Your task to perform on an android device: Check the weather Image 0: 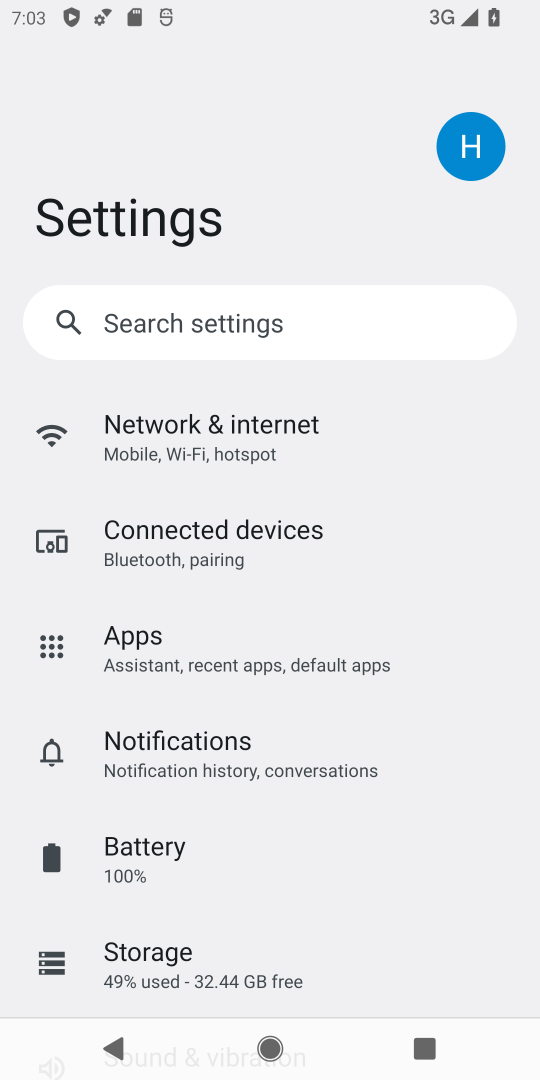
Step 0: press home button
Your task to perform on an android device: Check the weather Image 1: 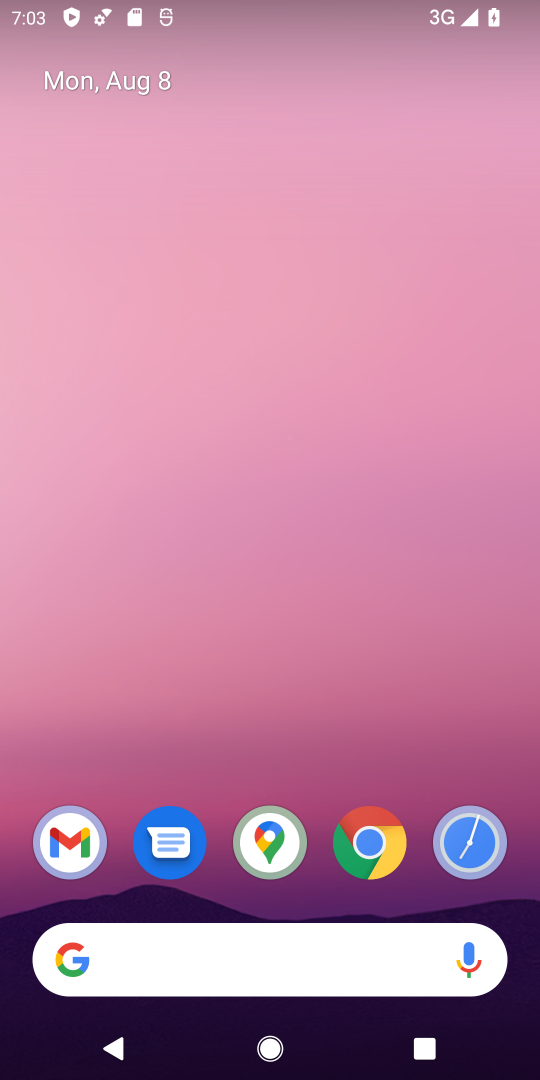
Step 1: click (266, 930)
Your task to perform on an android device: Check the weather Image 2: 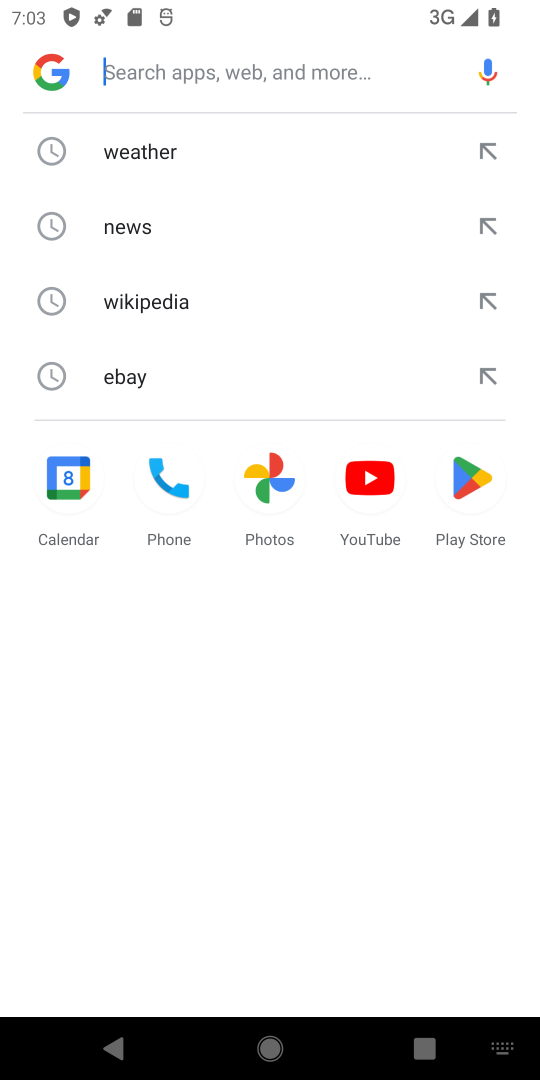
Step 2: click (139, 149)
Your task to perform on an android device: Check the weather Image 3: 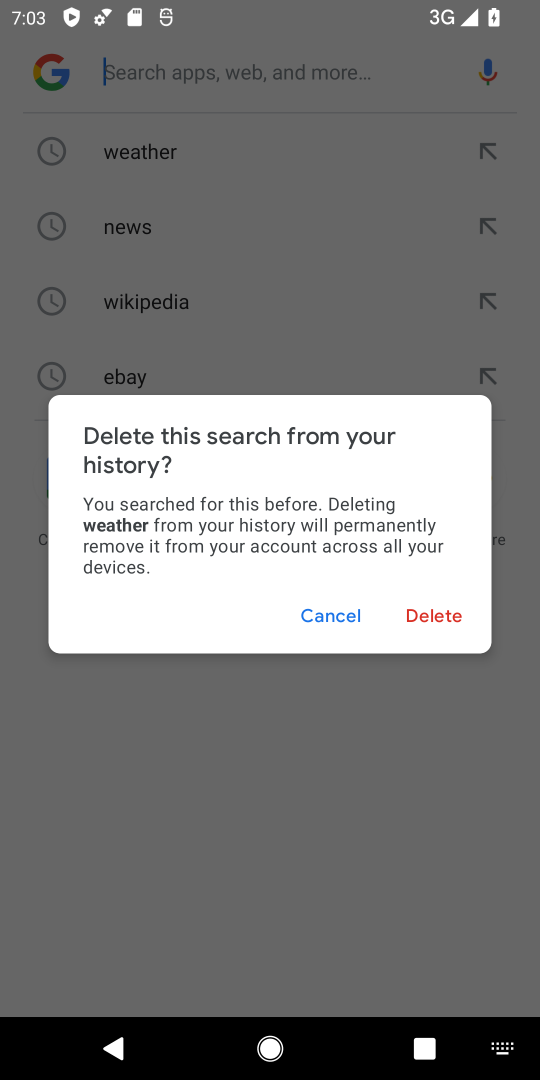
Step 3: click (318, 609)
Your task to perform on an android device: Check the weather Image 4: 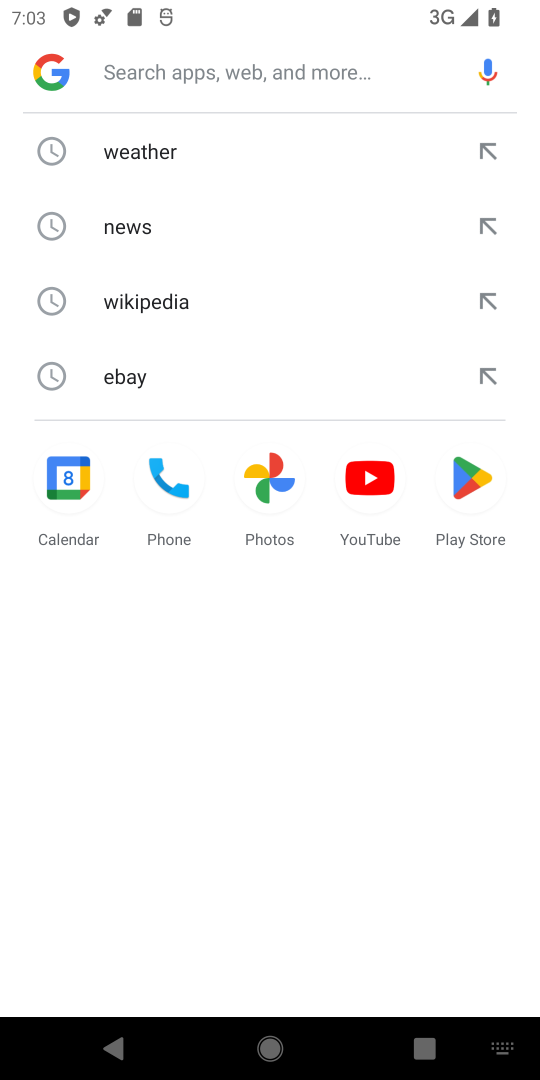
Step 4: click (110, 158)
Your task to perform on an android device: Check the weather Image 5: 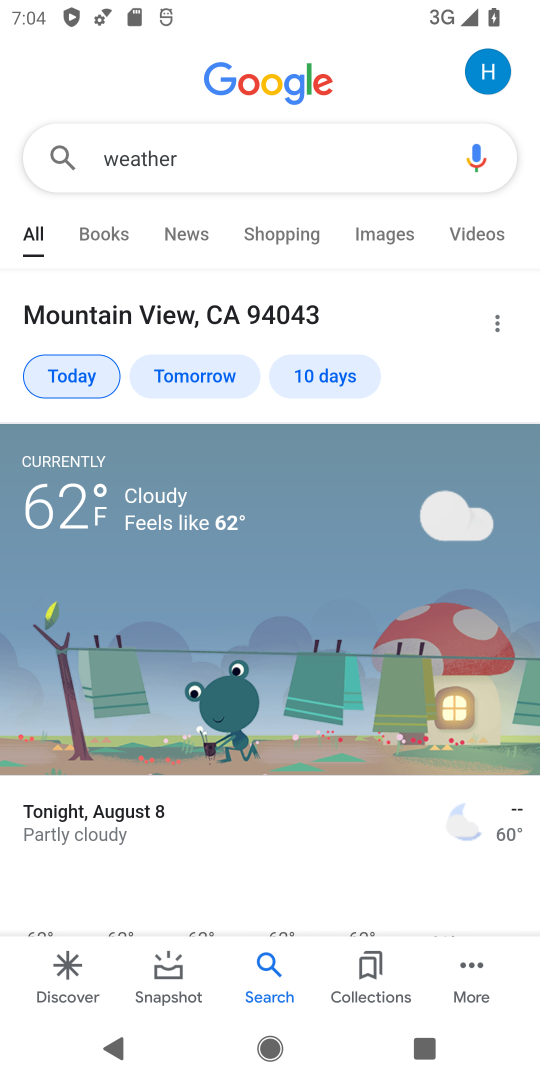
Step 5: task complete